Your task to perform on an android device: change the clock display to show seconds Image 0: 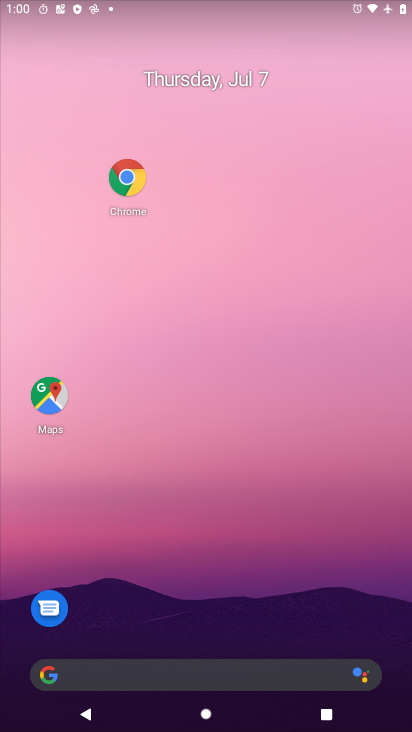
Step 0: drag from (151, 635) to (163, 264)
Your task to perform on an android device: change the clock display to show seconds Image 1: 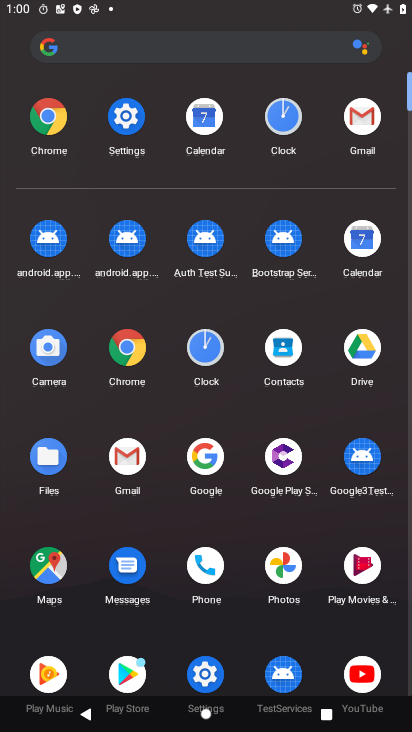
Step 1: click (178, 349)
Your task to perform on an android device: change the clock display to show seconds Image 2: 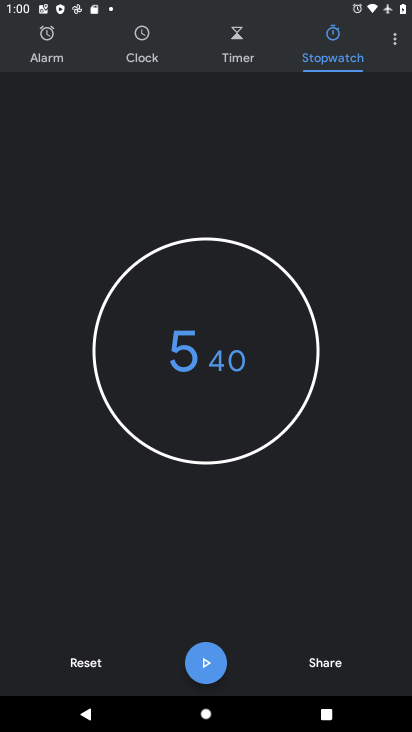
Step 2: click (391, 44)
Your task to perform on an android device: change the clock display to show seconds Image 3: 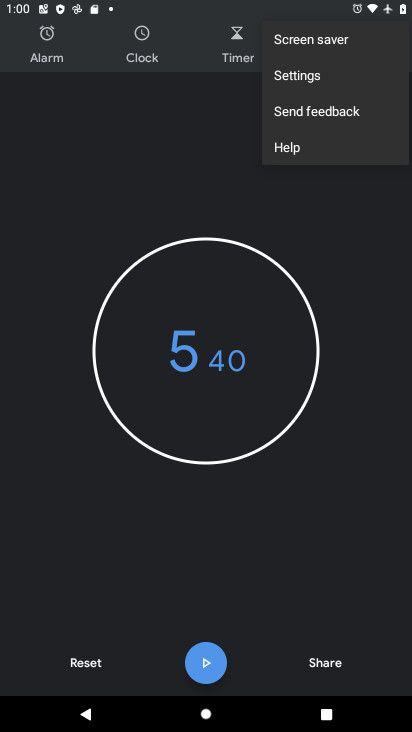
Step 3: click (286, 80)
Your task to perform on an android device: change the clock display to show seconds Image 4: 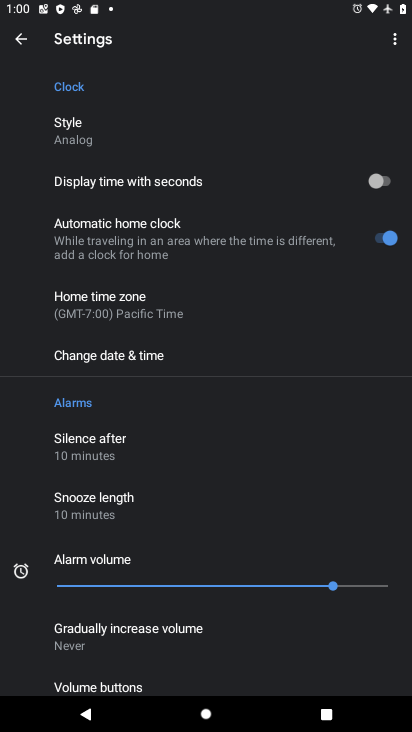
Step 4: click (85, 134)
Your task to perform on an android device: change the clock display to show seconds Image 5: 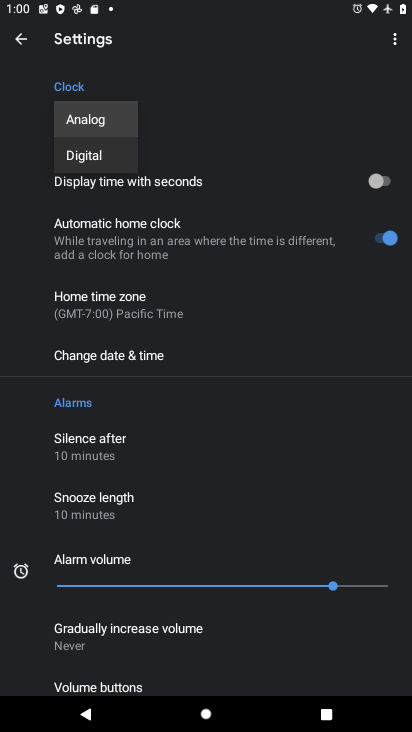
Step 5: click (79, 154)
Your task to perform on an android device: change the clock display to show seconds Image 6: 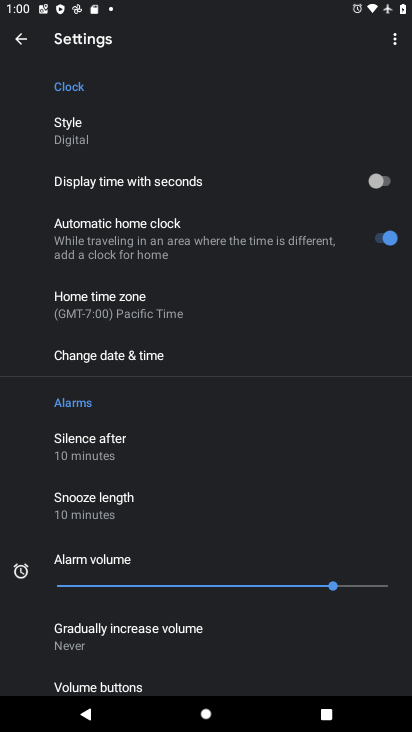
Step 6: task complete